Your task to perform on an android device: Go to Reddit.com Image 0: 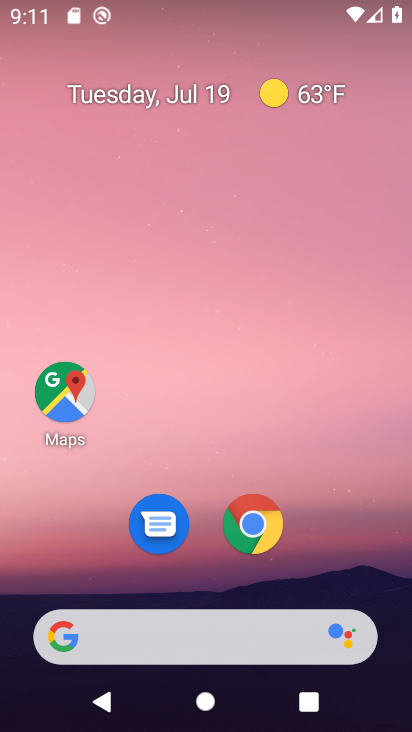
Step 0: click (256, 528)
Your task to perform on an android device: Go to Reddit.com Image 1: 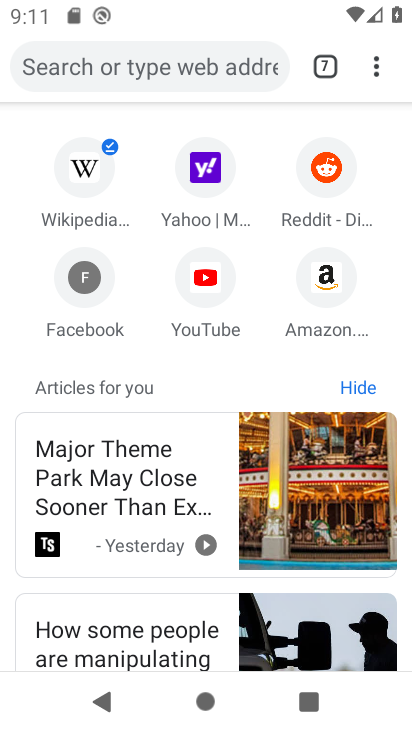
Step 1: click (323, 173)
Your task to perform on an android device: Go to Reddit.com Image 2: 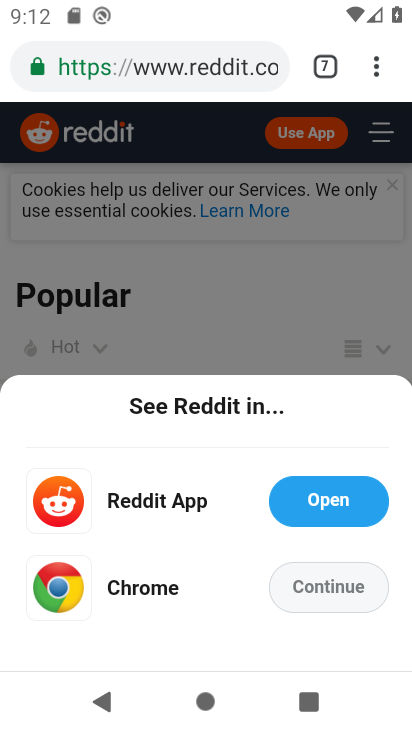
Step 2: task complete